Your task to perform on an android device: refresh tabs in the chrome app Image 0: 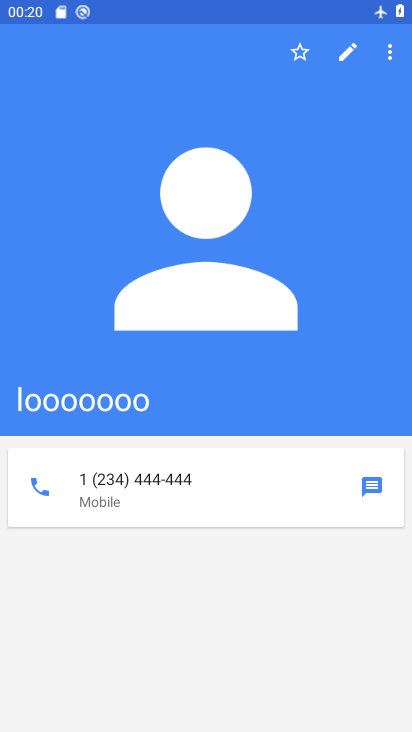
Step 0: click (338, 610)
Your task to perform on an android device: refresh tabs in the chrome app Image 1: 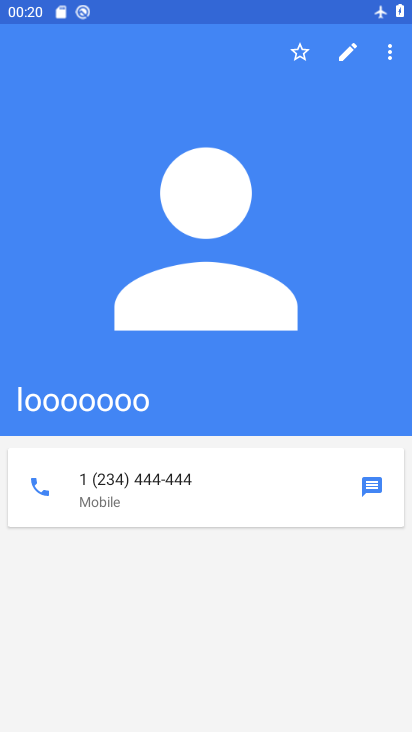
Step 1: press home button
Your task to perform on an android device: refresh tabs in the chrome app Image 2: 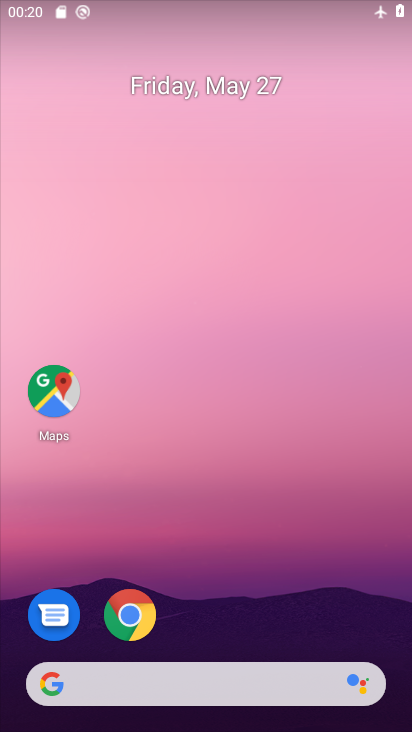
Step 2: drag from (339, 613) to (356, 199)
Your task to perform on an android device: refresh tabs in the chrome app Image 3: 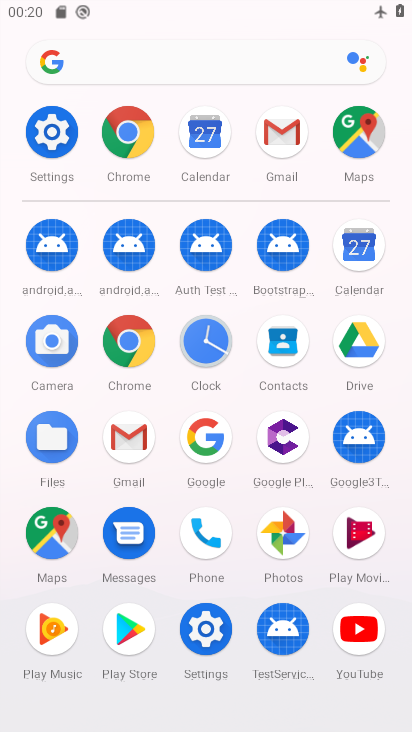
Step 3: click (127, 353)
Your task to perform on an android device: refresh tabs in the chrome app Image 4: 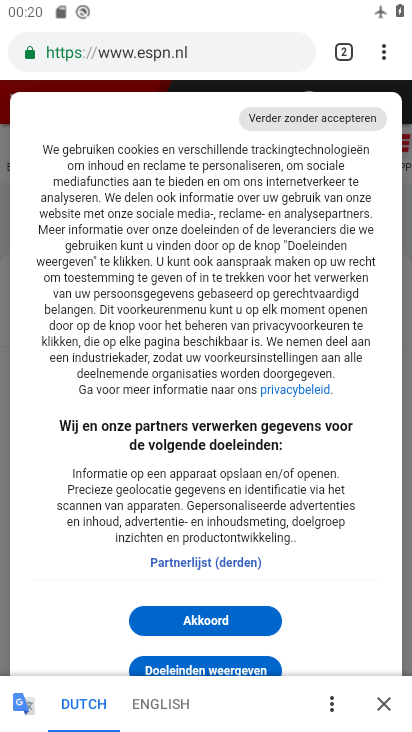
Step 4: click (380, 55)
Your task to perform on an android device: refresh tabs in the chrome app Image 5: 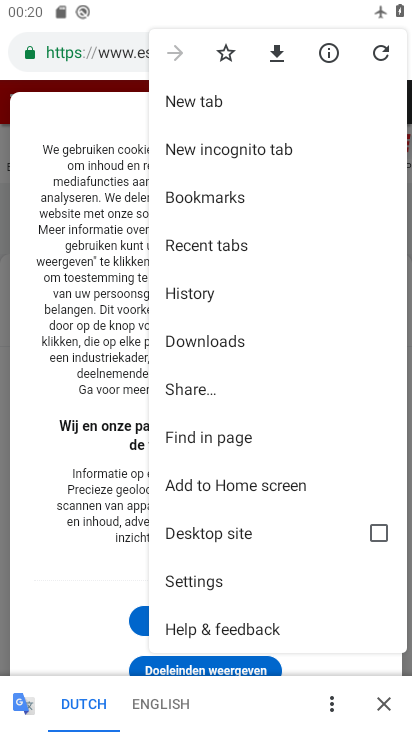
Step 5: click (381, 57)
Your task to perform on an android device: refresh tabs in the chrome app Image 6: 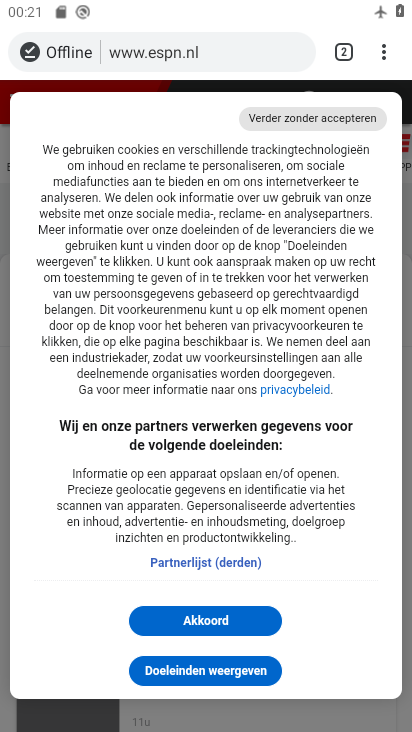
Step 6: task complete